Your task to perform on an android device: turn smart compose on in the gmail app Image 0: 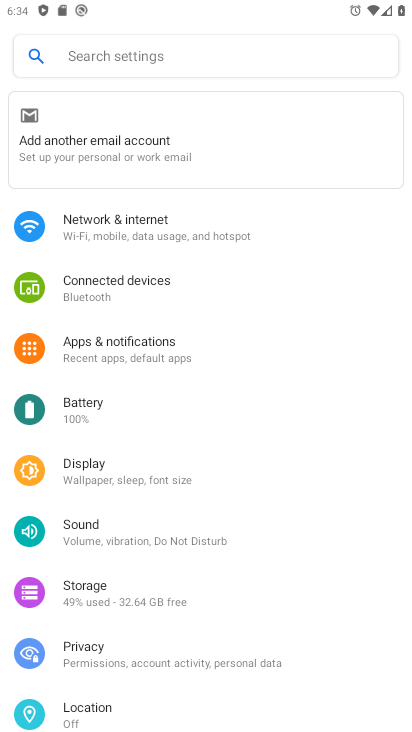
Step 0: press home button
Your task to perform on an android device: turn smart compose on in the gmail app Image 1: 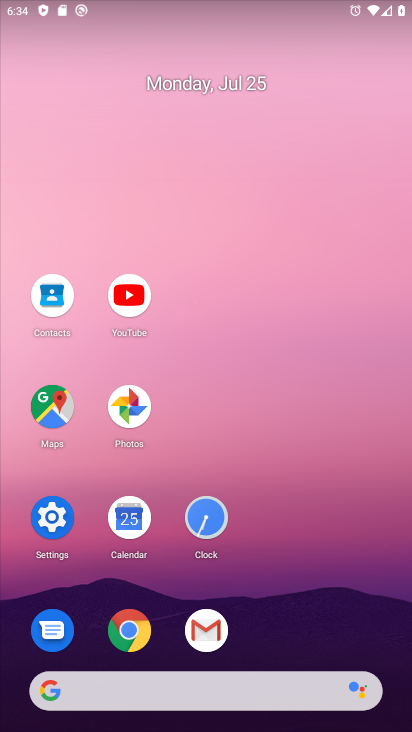
Step 1: click (203, 637)
Your task to perform on an android device: turn smart compose on in the gmail app Image 2: 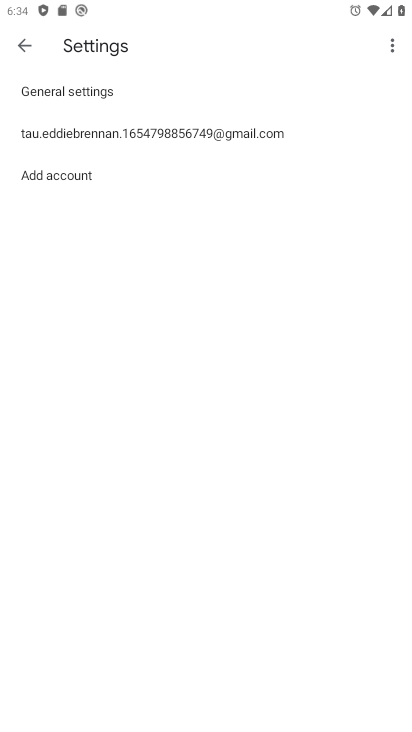
Step 2: click (63, 126)
Your task to perform on an android device: turn smart compose on in the gmail app Image 3: 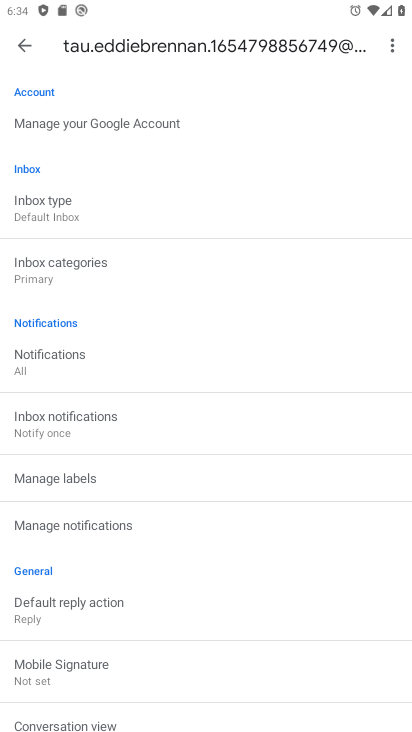
Step 3: task complete